Your task to perform on an android device: set the stopwatch Image 0: 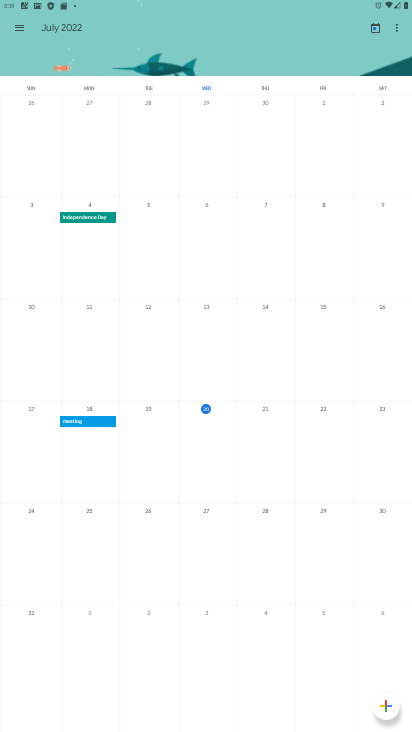
Step 0: press home button
Your task to perform on an android device: set the stopwatch Image 1: 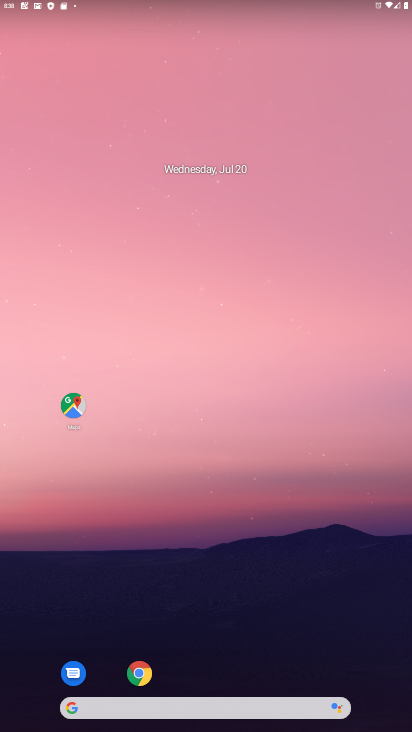
Step 1: drag from (199, 674) to (235, 114)
Your task to perform on an android device: set the stopwatch Image 2: 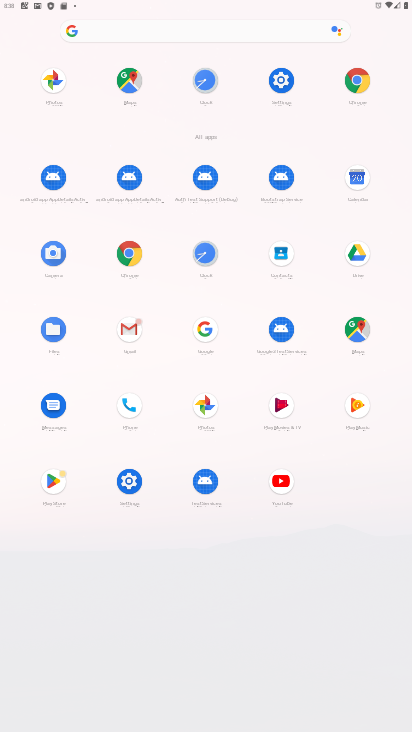
Step 2: click (205, 79)
Your task to perform on an android device: set the stopwatch Image 3: 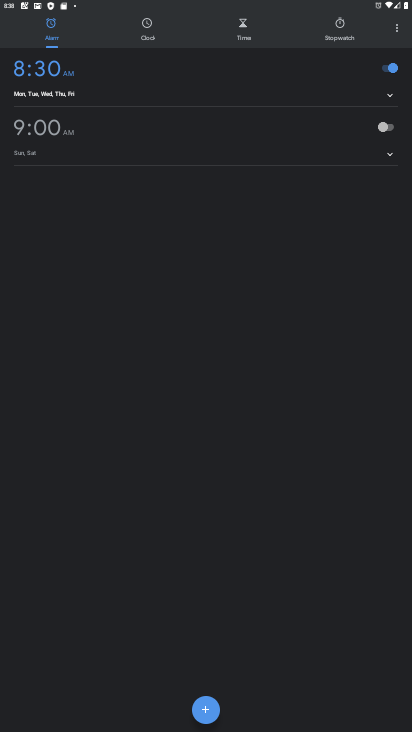
Step 3: click (340, 34)
Your task to perform on an android device: set the stopwatch Image 4: 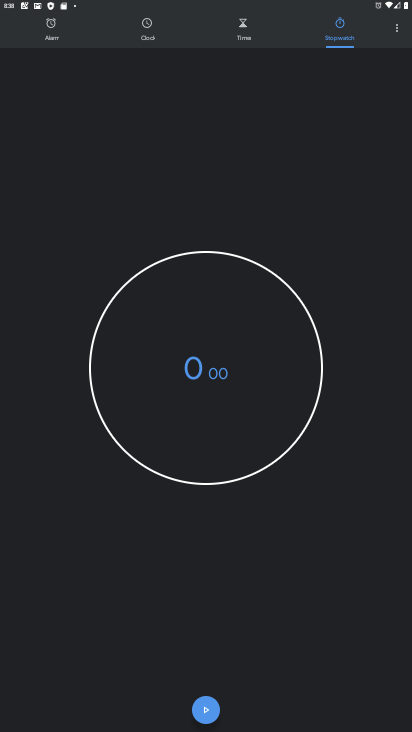
Step 4: click (208, 712)
Your task to perform on an android device: set the stopwatch Image 5: 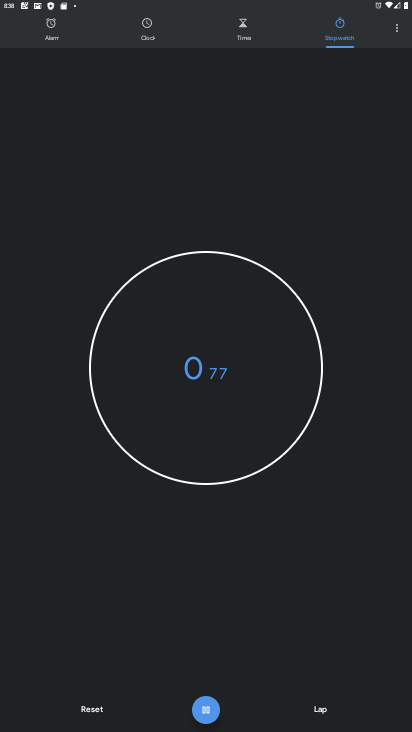
Step 5: click (208, 712)
Your task to perform on an android device: set the stopwatch Image 6: 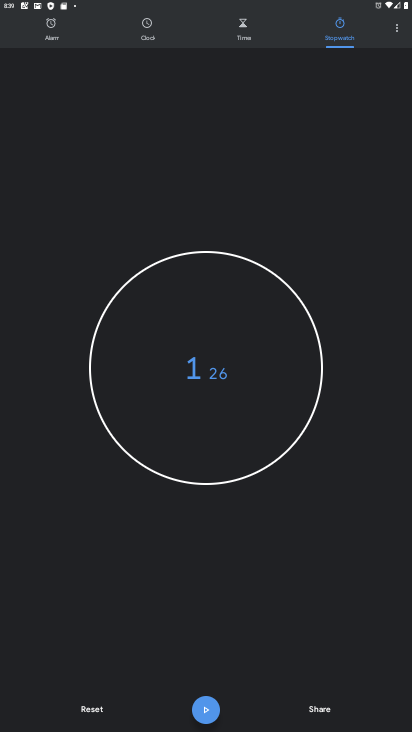
Step 6: task complete